Your task to perform on an android device: Open the phone app and click the voicemail tab. Image 0: 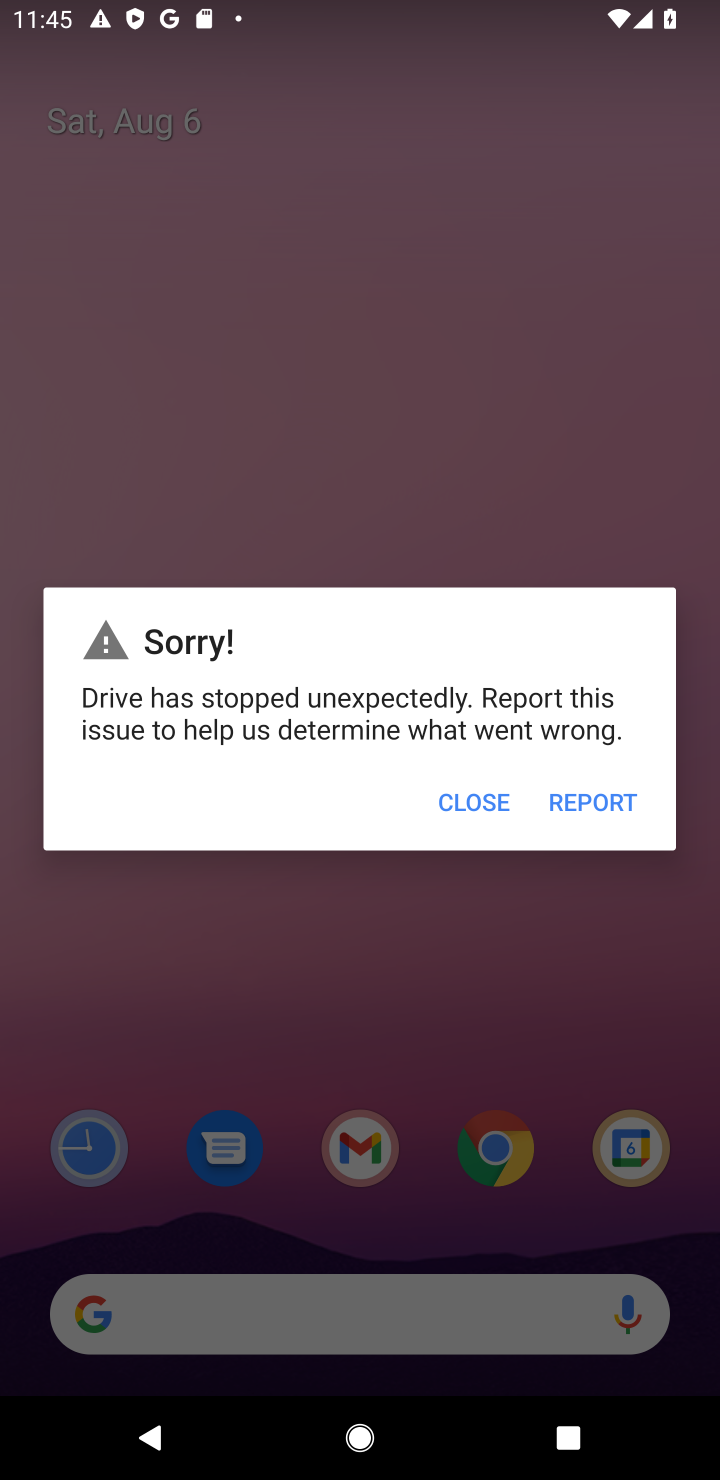
Step 0: click (554, 1007)
Your task to perform on an android device: Open the phone app and click the voicemail tab. Image 1: 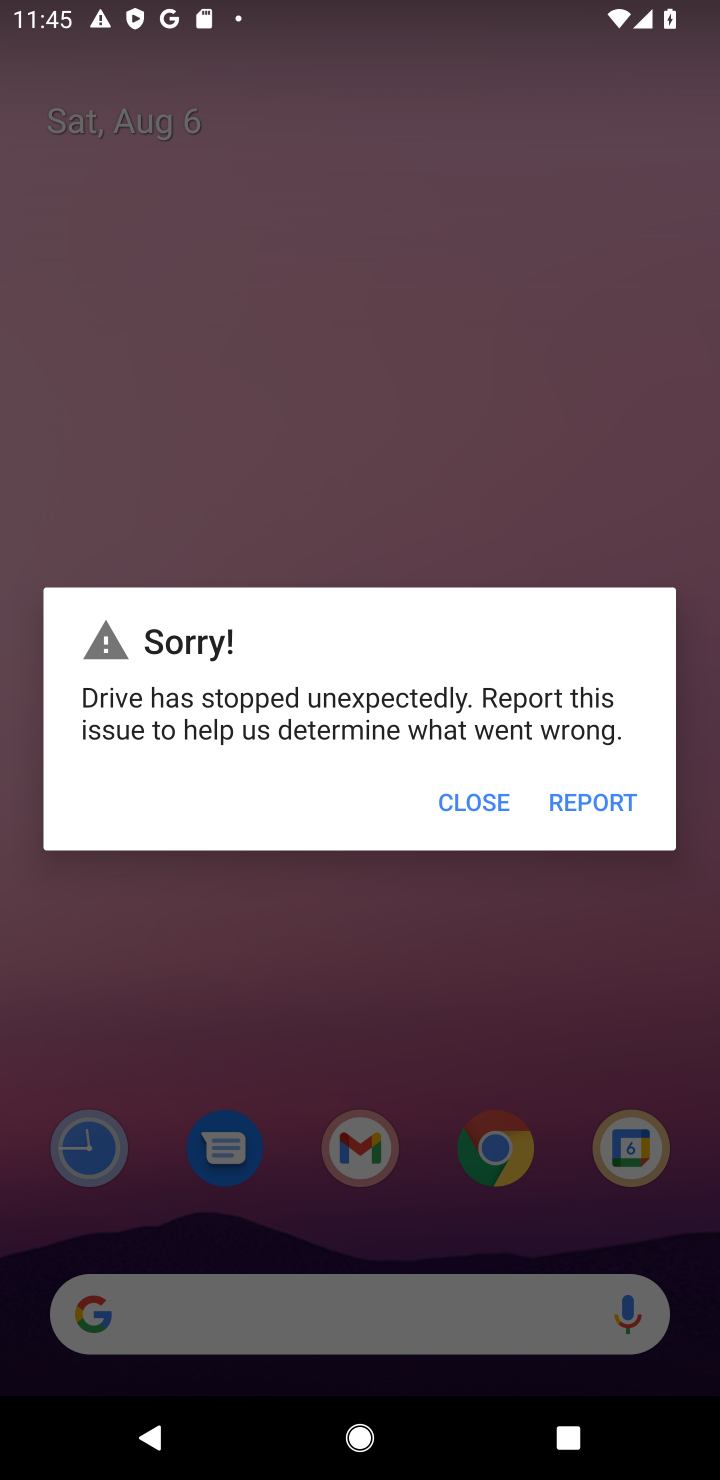
Step 1: click (450, 799)
Your task to perform on an android device: Open the phone app and click the voicemail tab. Image 2: 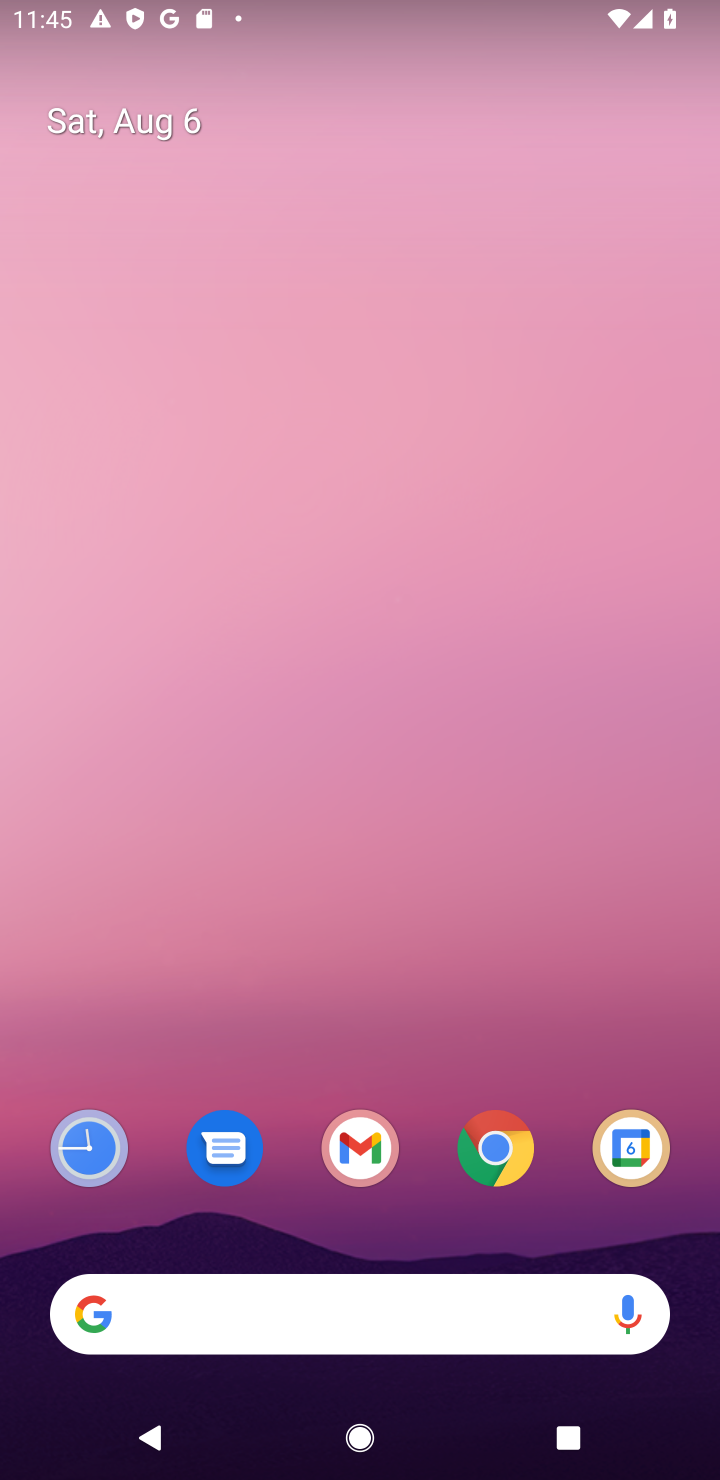
Step 2: drag from (358, 891) to (281, 167)
Your task to perform on an android device: Open the phone app and click the voicemail tab. Image 3: 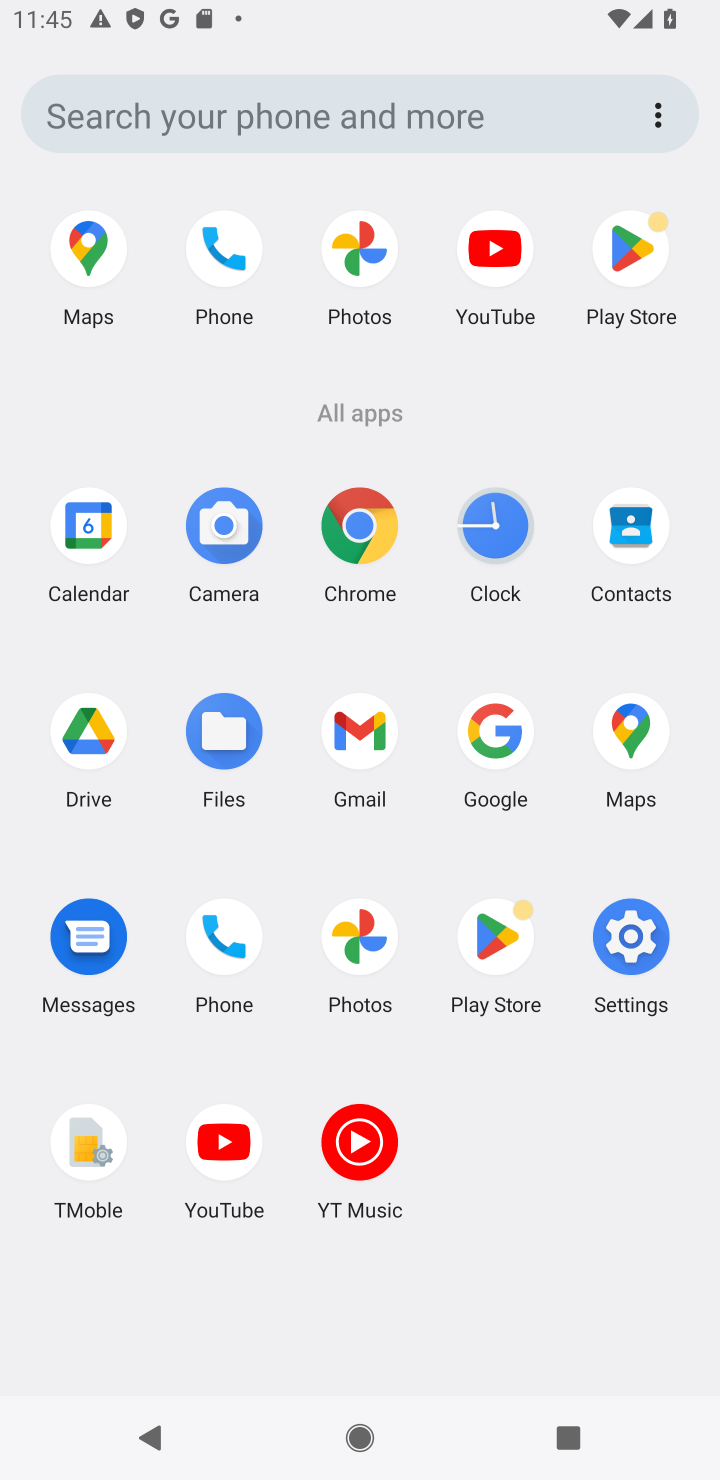
Step 3: click (216, 264)
Your task to perform on an android device: Open the phone app and click the voicemail tab. Image 4: 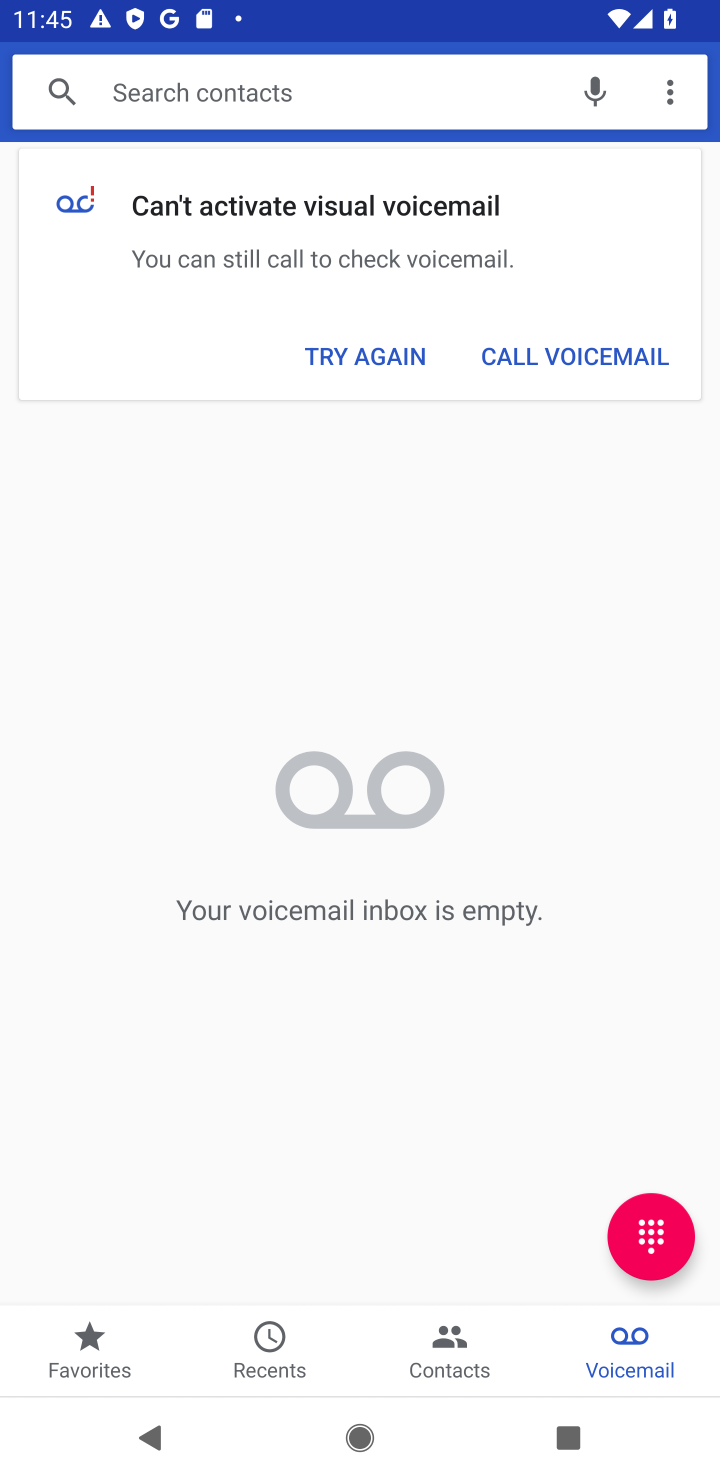
Step 4: task complete